Your task to perform on an android device: Open privacy settings Image 0: 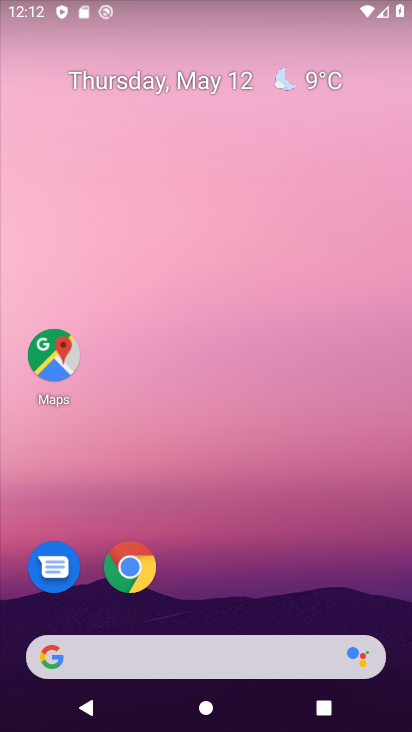
Step 0: drag from (227, 583) to (230, 79)
Your task to perform on an android device: Open privacy settings Image 1: 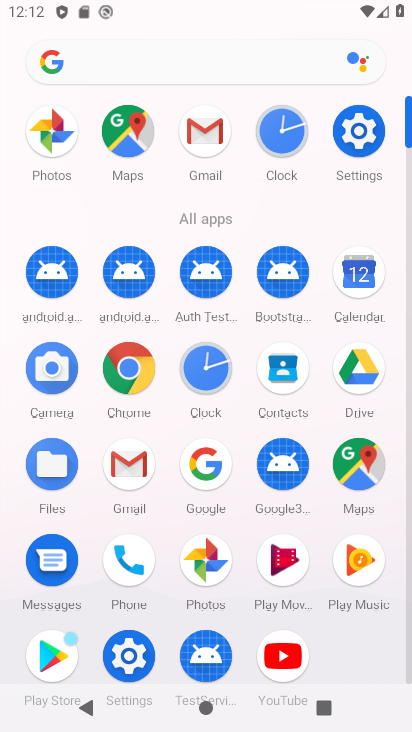
Step 1: click (350, 155)
Your task to perform on an android device: Open privacy settings Image 2: 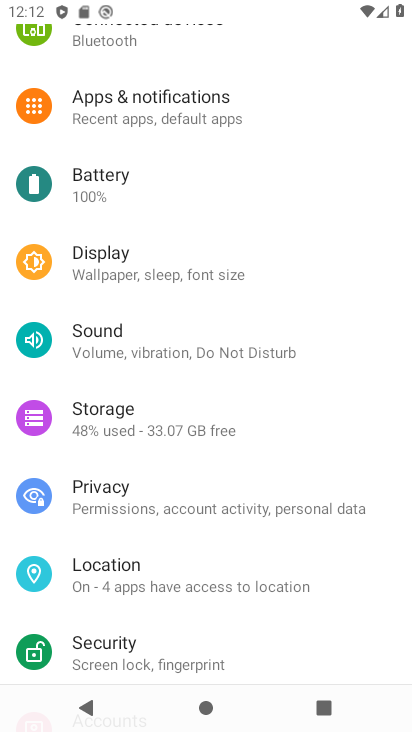
Step 2: click (143, 508)
Your task to perform on an android device: Open privacy settings Image 3: 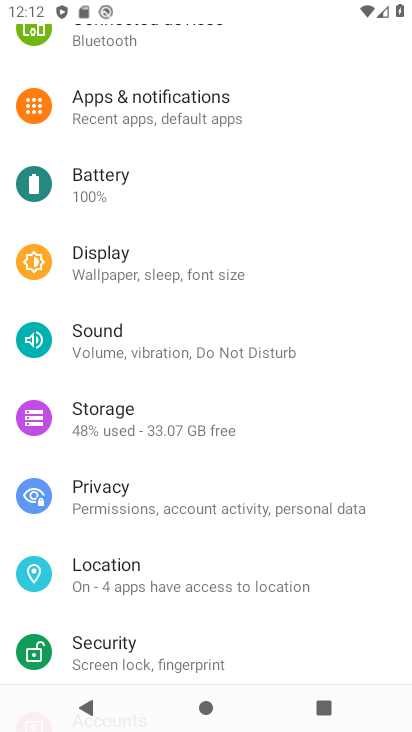
Step 3: click (178, 501)
Your task to perform on an android device: Open privacy settings Image 4: 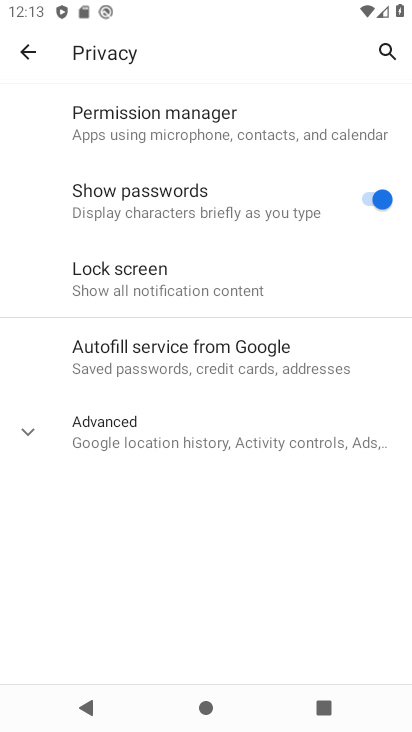
Step 4: task complete